Your task to perform on an android device: Go to Amazon Image 0: 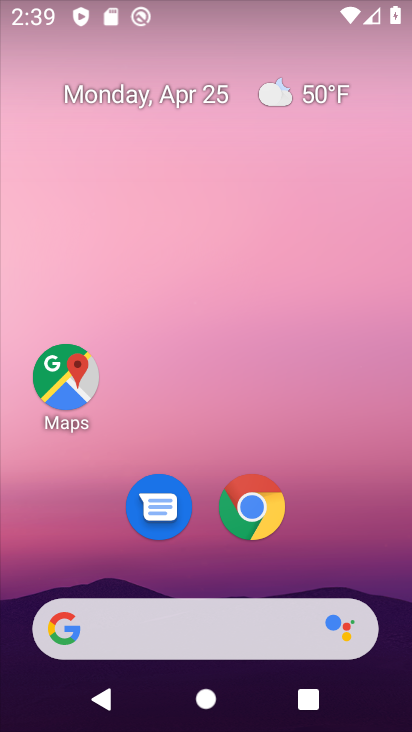
Step 0: click (253, 512)
Your task to perform on an android device: Go to Amazon Image 1: 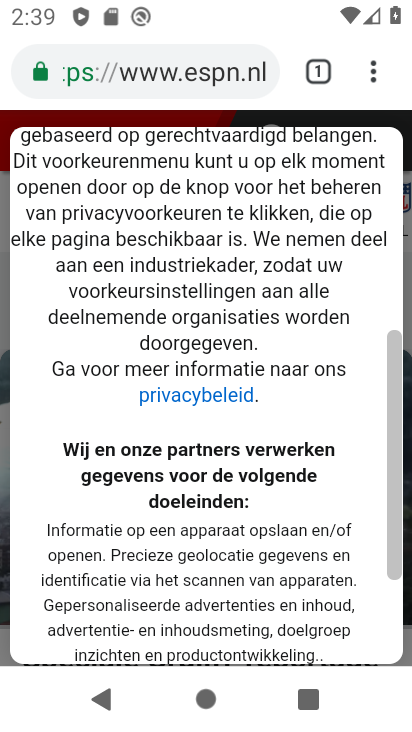
Step 1: click (372, 78)
Your task to perform on an android device: Go to Amazon Image 2: 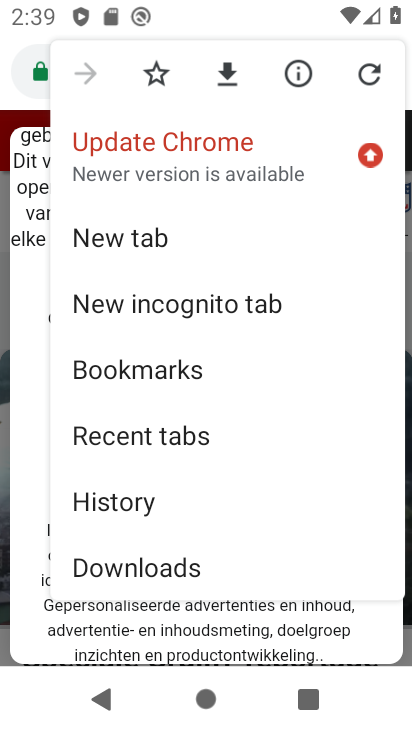
Step 2: click (11, 94)
Your task to perform on an android device: Go to Amazon Image 3: 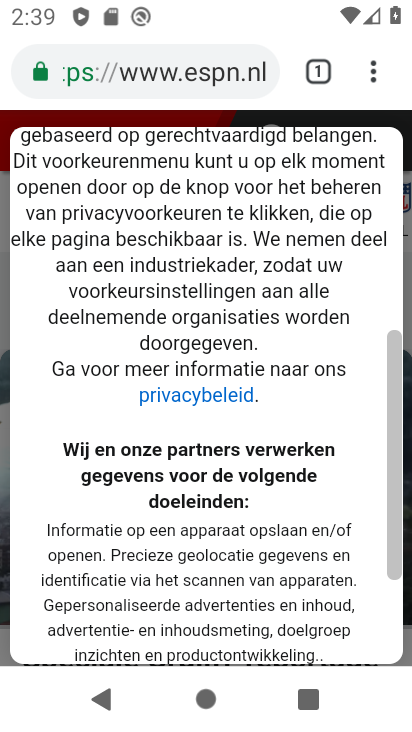
Step 3: click (143, 60)
Your task to perform on an android device: Go to Amazon Image 4: 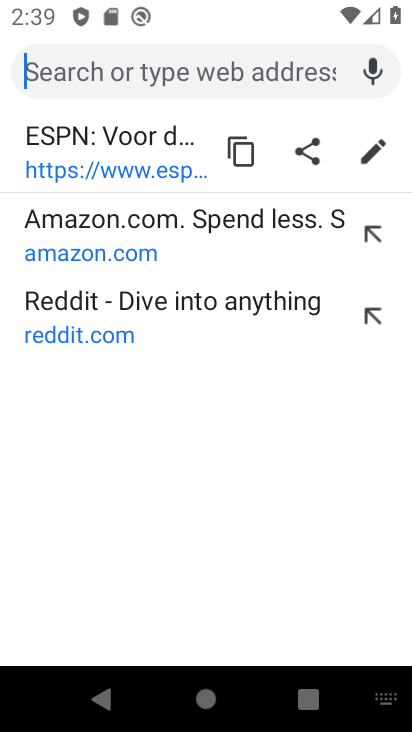
Step 4: type "amazon"
Your task to perform on an android device: Go to Amazon Image 5: 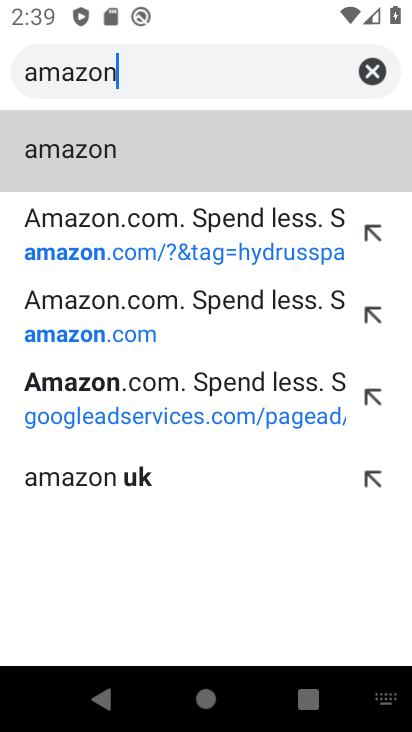
Step 5: click (79, 161)
Your task to perform on an android device: Go to Amazon Image 6: 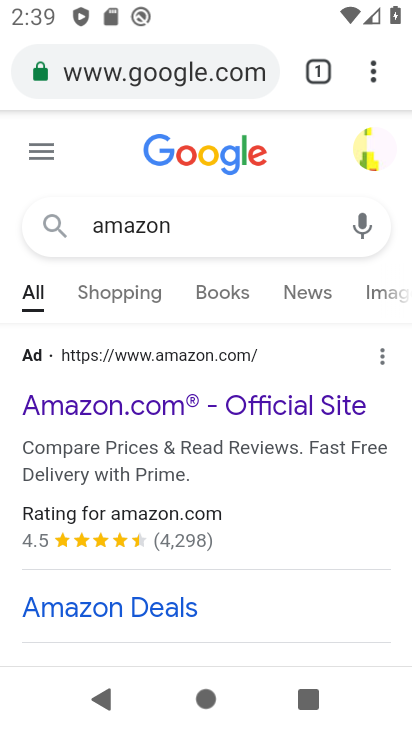
Step 6: click (81, 412)
Your task to perform on an android device: Go to Amazon Image 7: 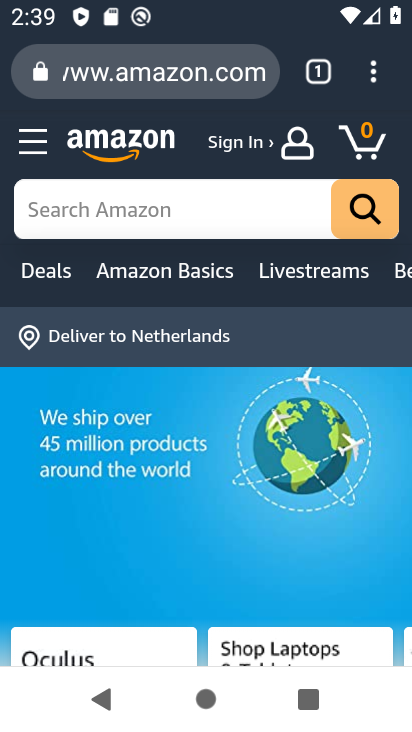
Step 7: task complete